Your task to perform on an android device: toggle airplane mode Image 0: 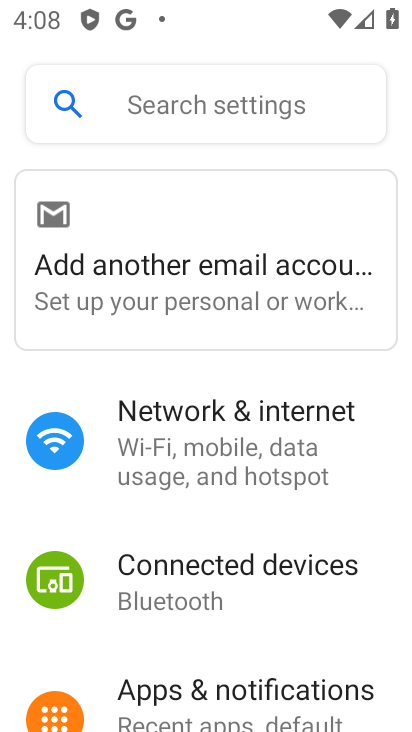
Step 0: drag from (357, 637) to (352, 509)
Your task to perform on an android device: toggle airplane mode Image 1: 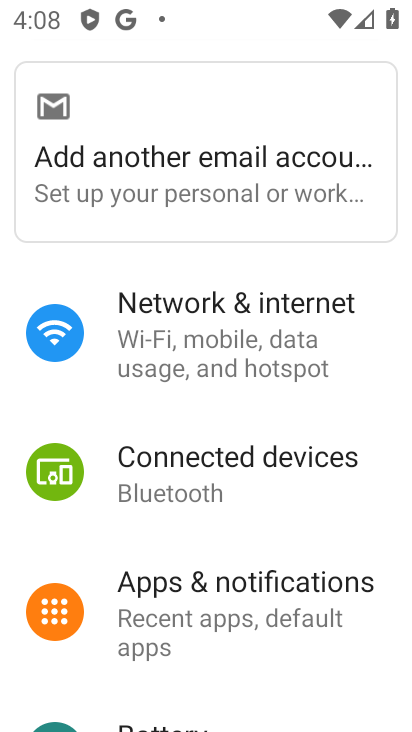
Step 1: drag from (357, 659) to (355, 507)
Your task to perform on an android device: toggle airplane mode Image 2: 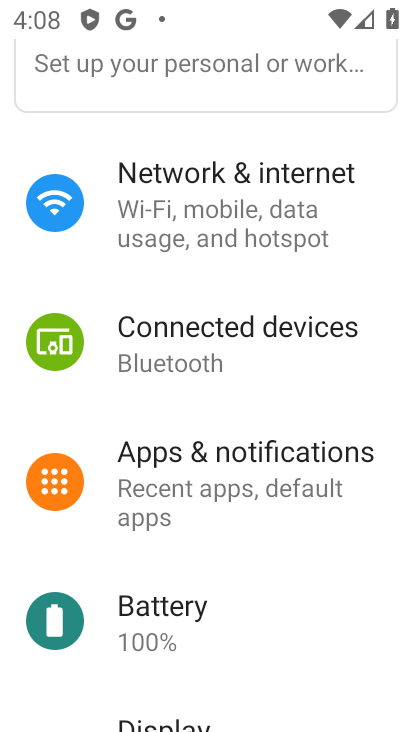
Step 2: drag from (360, 649) to (366, 415)
Your task to perform on an android device: toggle airplane mode Image 3: 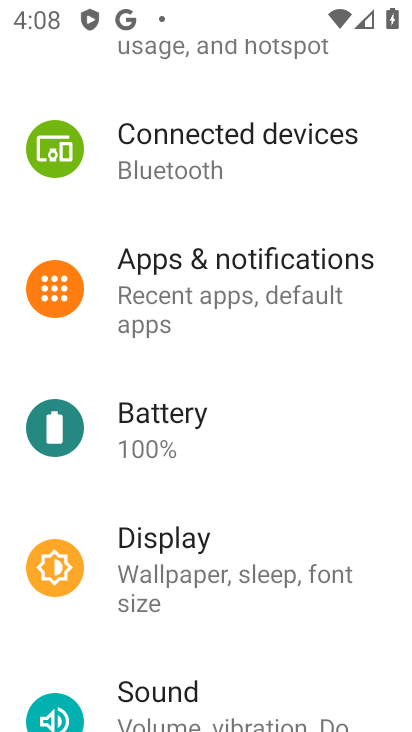
Step 3: drag from (353, 630) to (347, 476)
Your task to perform on an android device: toggle airplane mode Image 4: 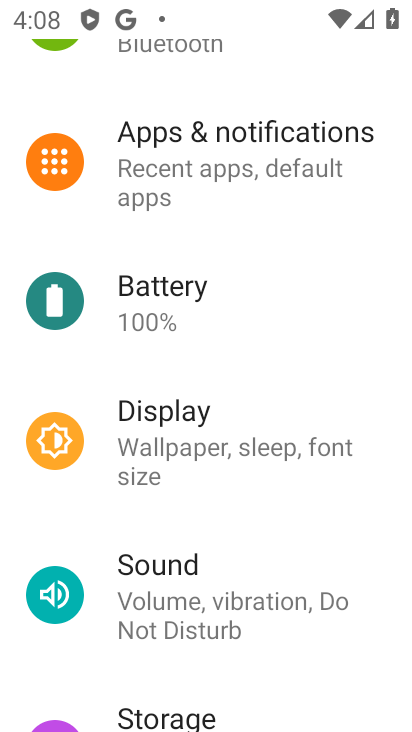
Step 4: drag from (356, 668) to (360, 542)
Your task to perform on an android device: toggle airplane mode Image 5: 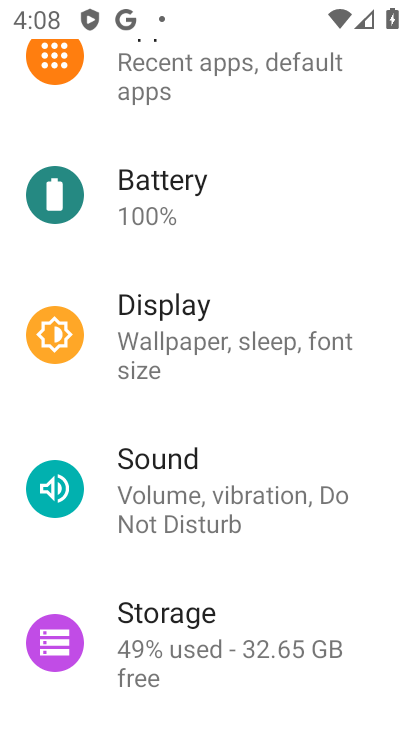
Step 5: drag from (364, 660) to (355, 527)
Your task to perform on an android device: toggle airplane mode Image 6: 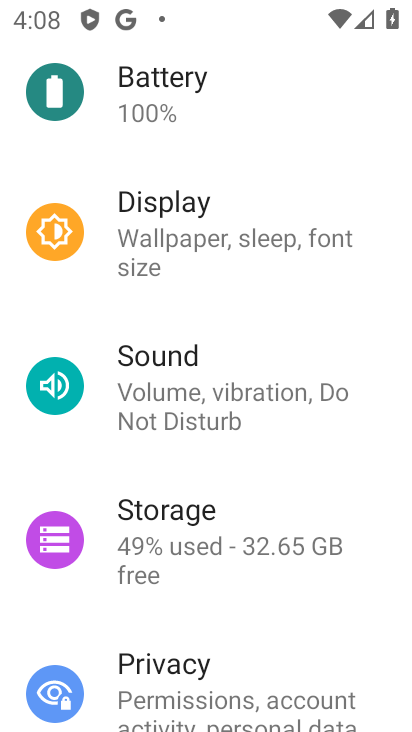
Step 6: drag from (363, 652) to (355, 485)
Your task to perform on an android device: toggle airplane mode Image 7: 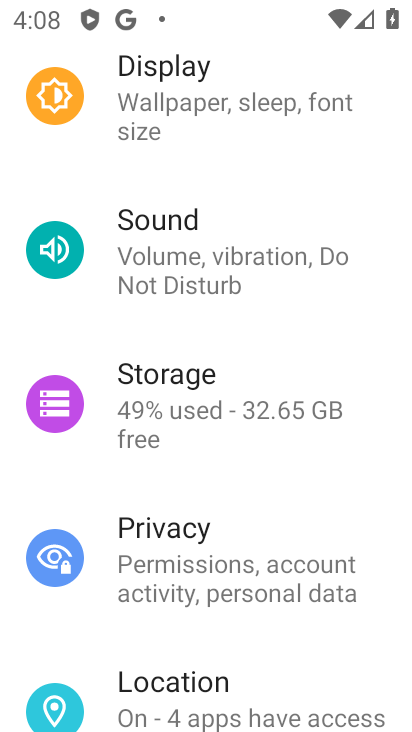
Step 7: drag from (368, 648) to (367, 511)
Your task to perform on an android device: toggle airplane mode Image 8: 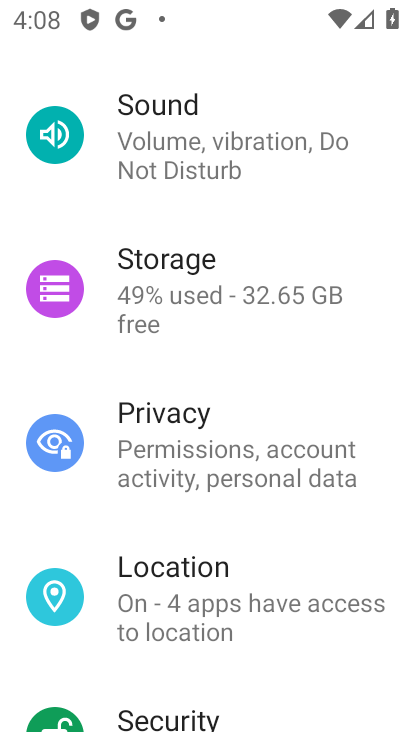
Step 8: drag from (380, 628) to (381, 524)
Your task to perform on an android device: toggle airplane mode Image 9: 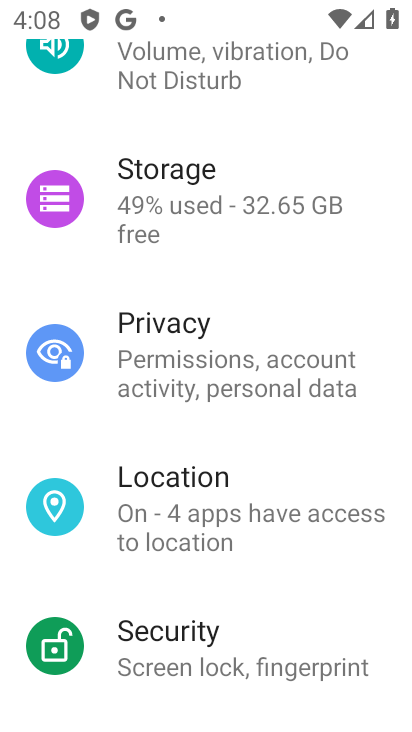
Step 9: drag from (381, 634) to (379, 511)
Your task to perform on an android device: toggle airplane mode Image 10: 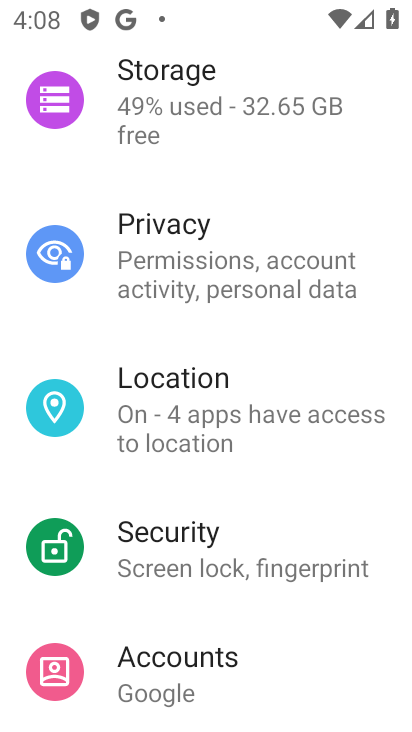
Step 10: drag from (372, 366) to (346, 537)
Your task to perform on an android device: toggle airplane mode Image 11: 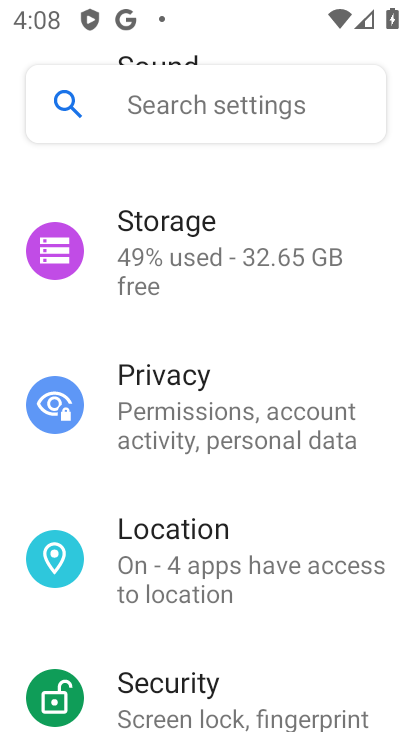
Step 11: drag from (368, 402) to (373, 518)
Your task to perform on an android device: toggle airplane mode Image 12: 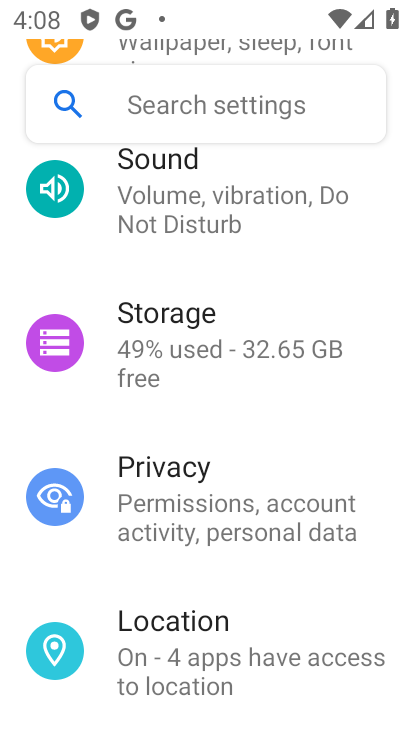
Step 12: drag from (383, 389) to (386, 512)
Your task to perform on an android device: toggle airplane mode Image 13: 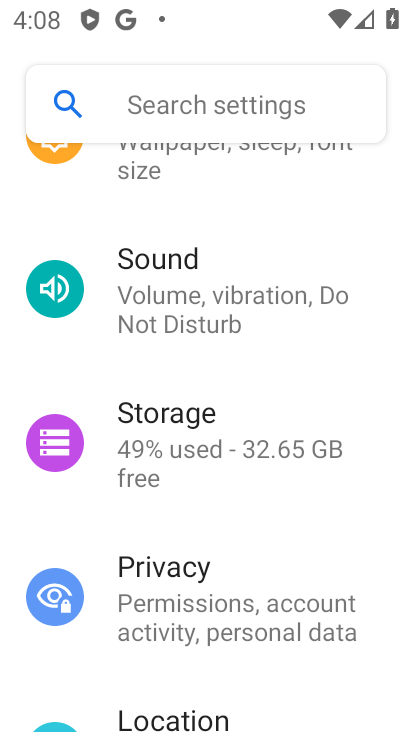
Step 13: drag from (376, 377) to (377, 468)
Your task to perform on an android device: toggle airplane mode Image 14: 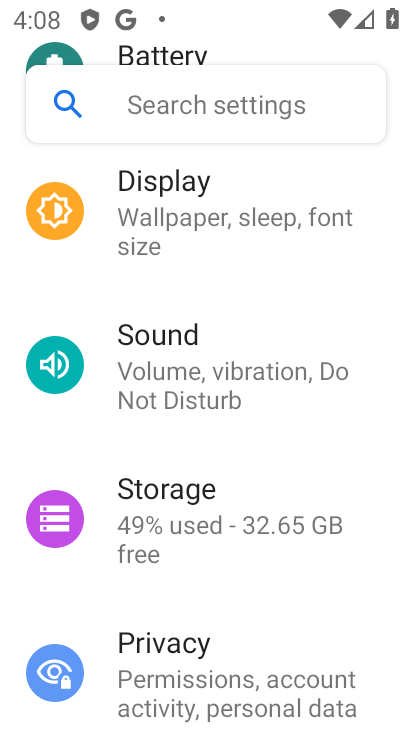
Step 14: drag from (372, 368) to (369, 475)
Your task to perform on an android device: toggle airplane mode Image 15: 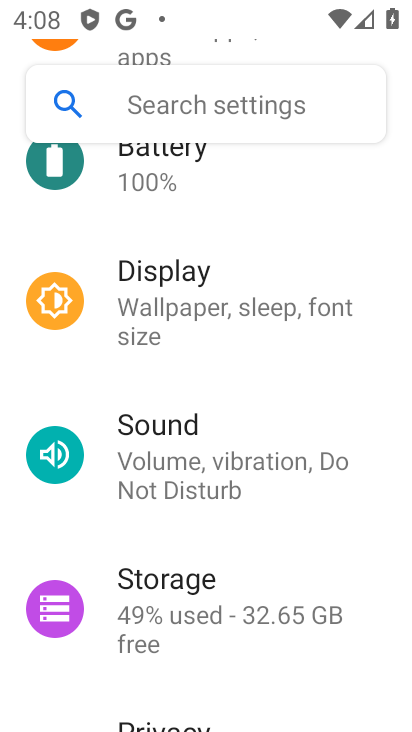
Step 15: drag from (361, 354) to (363, 466)
Your task to perform on an android device: toggle airplane mode Image 16: 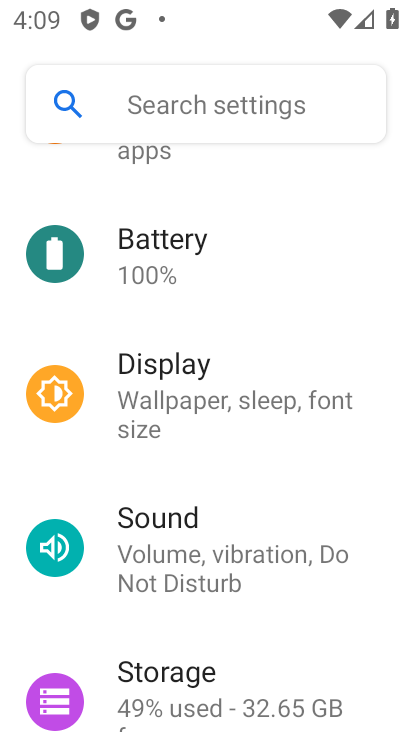
Step 16: drag from (372, 363) to (372, 478)
Your task to perform on an android device: toggle airplane mode Image 17: 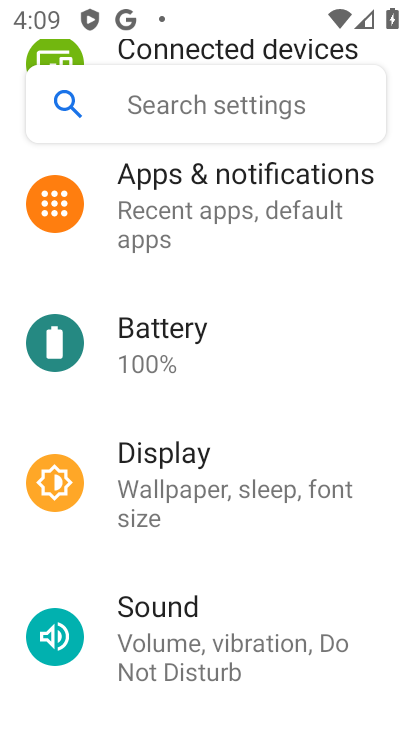
Step 17: drag from (380, 312) to (375, 440)
Your task to perform on an android device: toggle airplane mode Image 18: 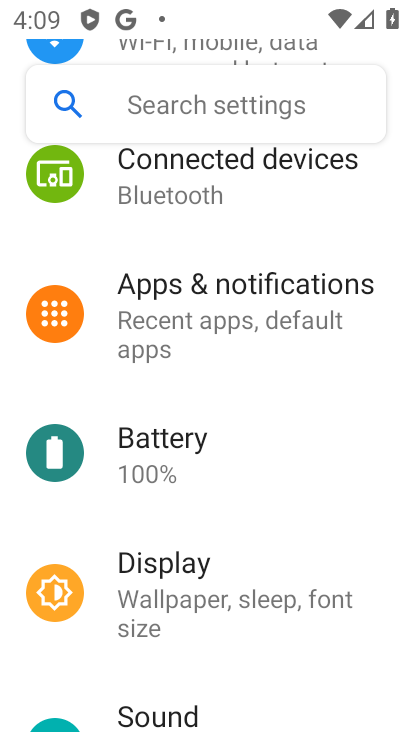
Step 18: drag from (373, 304) to (367, 427)
Your task to perform on an android device: toggle airplane mode Image 19: 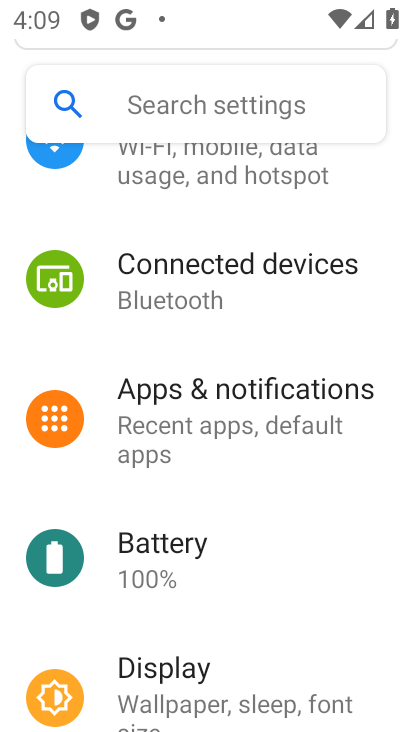
Step 19: drag from (357, 246) to (360, 399)
Your task to perform on an android device: toggle airplane mode Image 20: 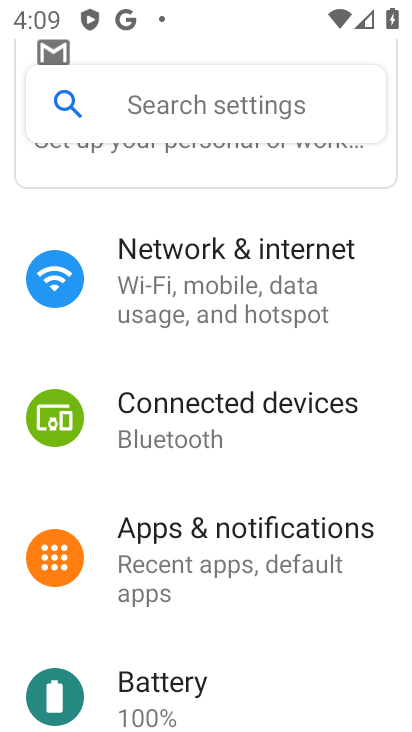
Step 20: click (271, 293)
Your task to perform on an android device: toggle airplane mode Image 21: 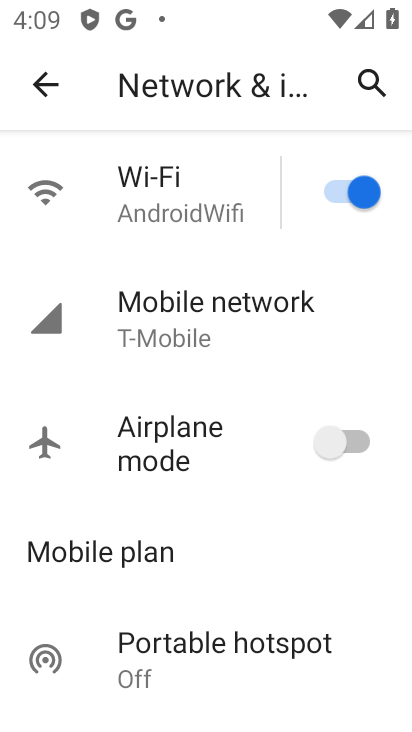
Step 21: click (338, 460)
Your task to perform on an android device: toggle airplane mode Image 22: 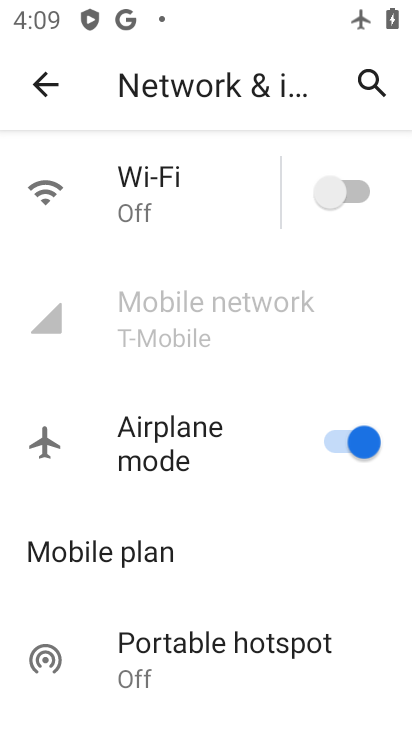
Step 22: task complete